Your task to perform on an android device: turn on airplane mode Image 0: 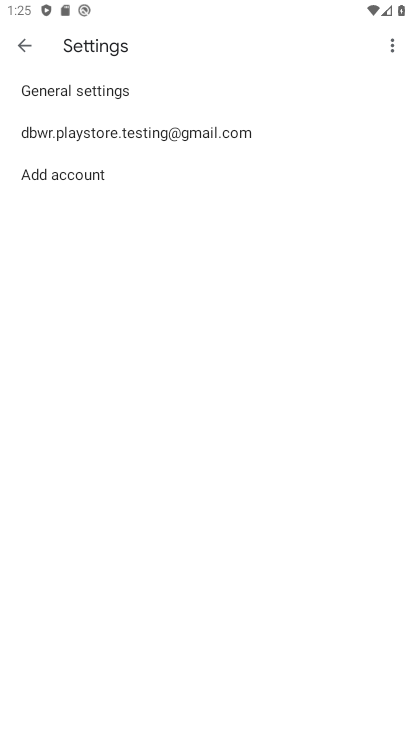
Step 0: press home button
Your task to perform on an android device: turn on airplane mode Image 1: 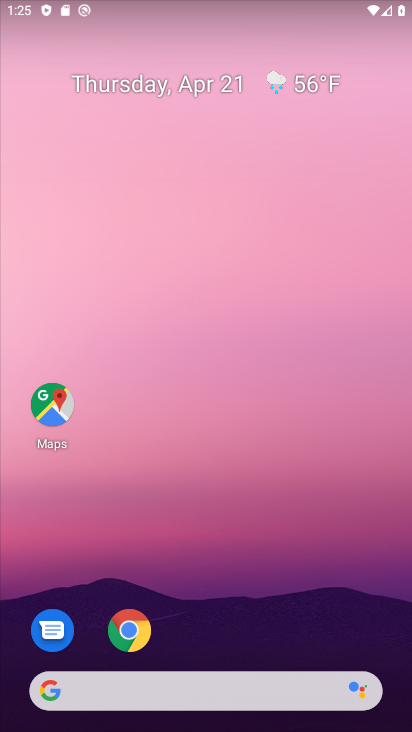
Step 1: drag from (118, 682) to (100, 447)
Your task to perform on an android device: turn on airplane mode Image 2: 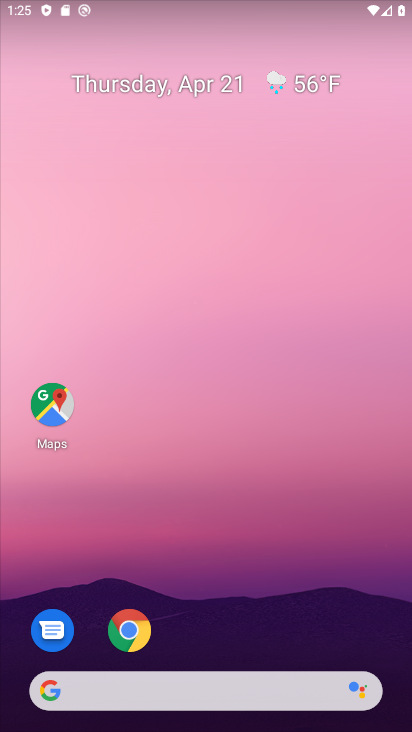
Step 2: drag from (209, 695) to (175, 323)
Your task to perform on an android device: turn on airplane mode Image 3: 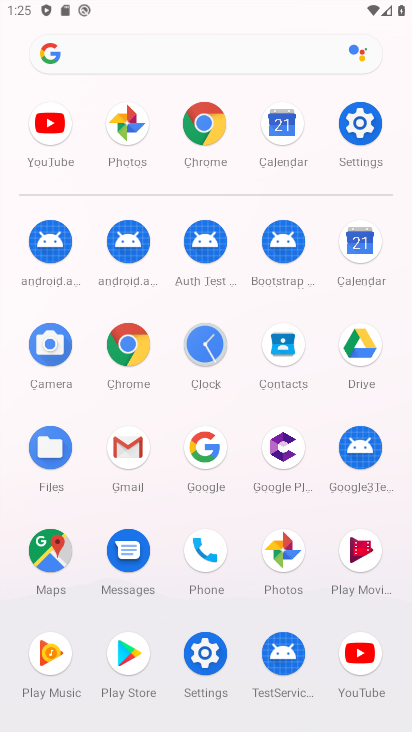
Step 3: click (359, 139)
Your task to perform on an android device: turn on airplane mode Image 4: 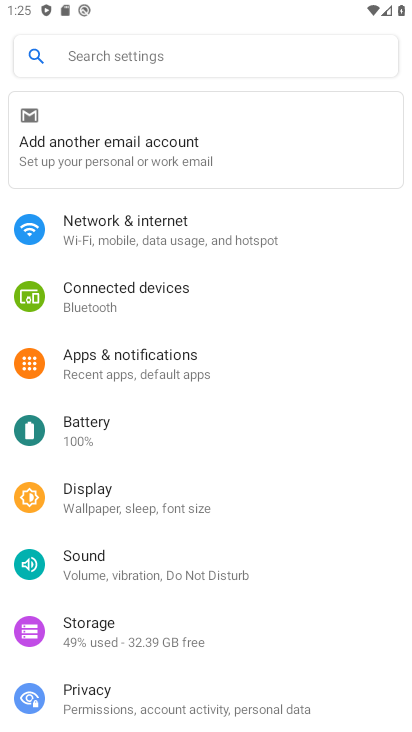
Step 4: click (211, 240)
Your task to perform on an android device: turn on airplane mode Image 5: 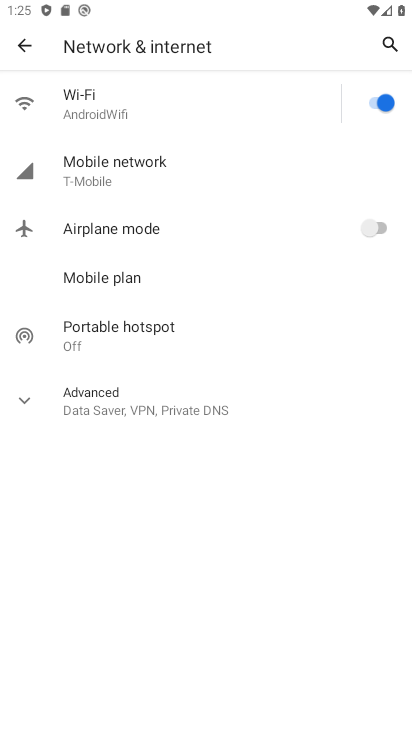
Step 5: click (378, 223)
Your task to perform on an android device: turn on airplane mode Image 6: 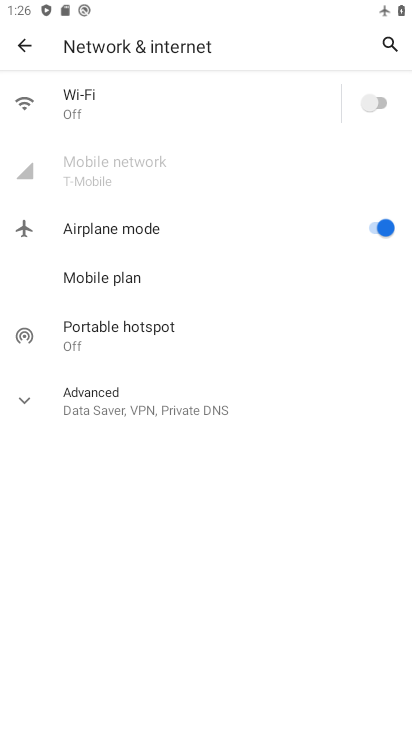
Step 6: task complete